Your task to perform on an android device: empty trash in the gmail app Image 0: 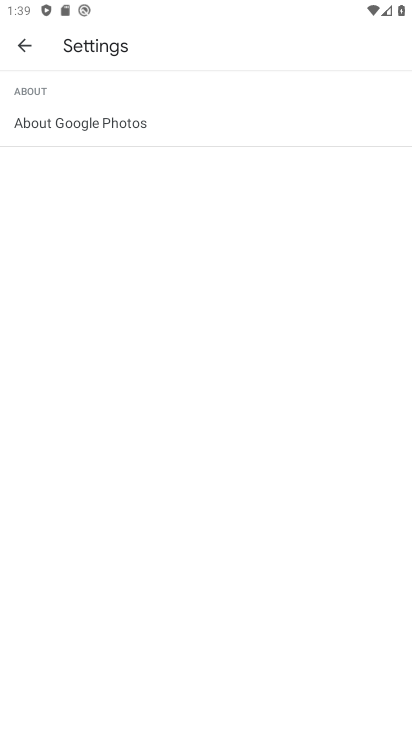
Step 0: press home button
Your task to perform on an android device: empty trash in the gmail app Image 1: 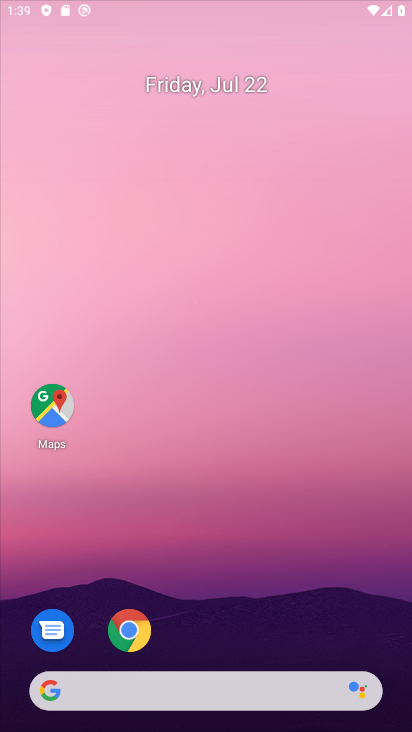
Step 1: drag from (208, 591) to (188, 131)
Your task to perform on an android device: empty trash in the gmail app Image 2: 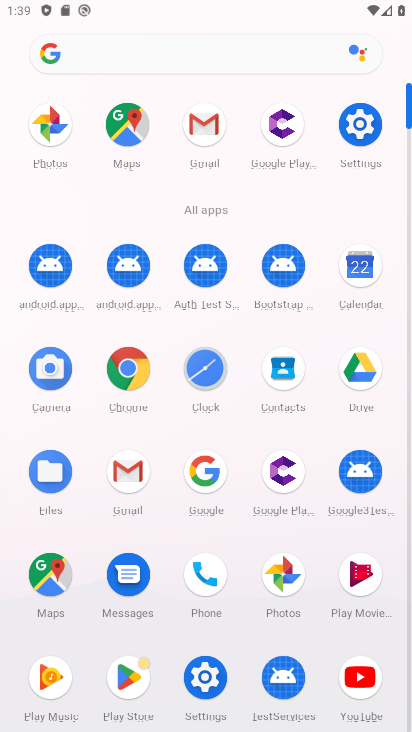
Step 2: click (191, 129)
Your task to perform on an android device: empty trash in the gmail app Image 3: 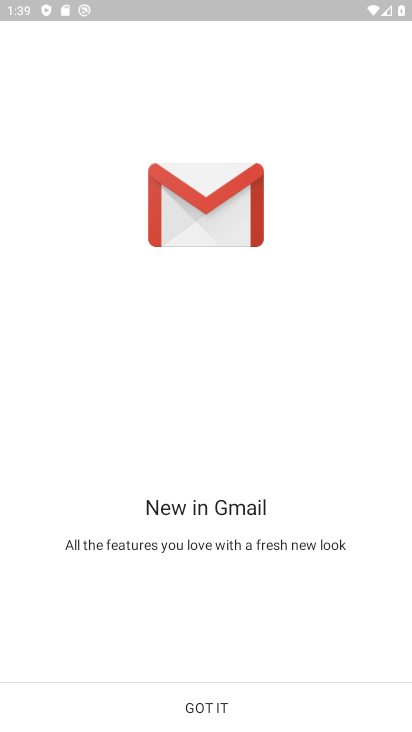
Step 3: click (192, 708)
Your task to perform on an android device: empty trash in the gmail app Image 4: 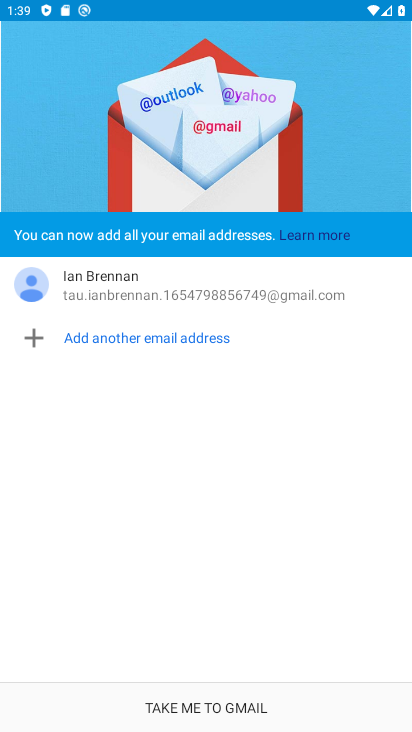
Step 4: click (192, 708)
Your task to perform on an android device: empty trash in the gmail app Image 5: 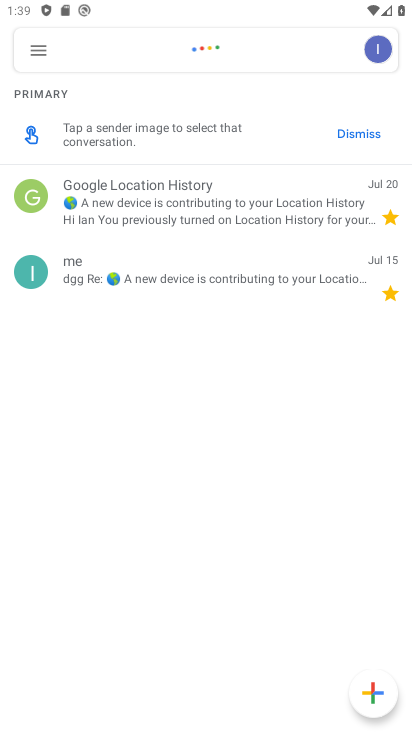
Step 5: click (41, 48)
Your task to perform on an android device: empty trash in the gmail app Image 6: 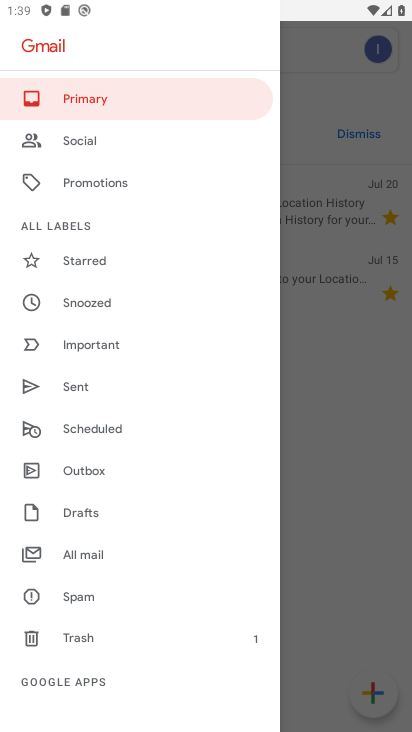
Step 6: click (101, 635)
Your task to perform on an android device: empty trash in the gmail app Image 7: 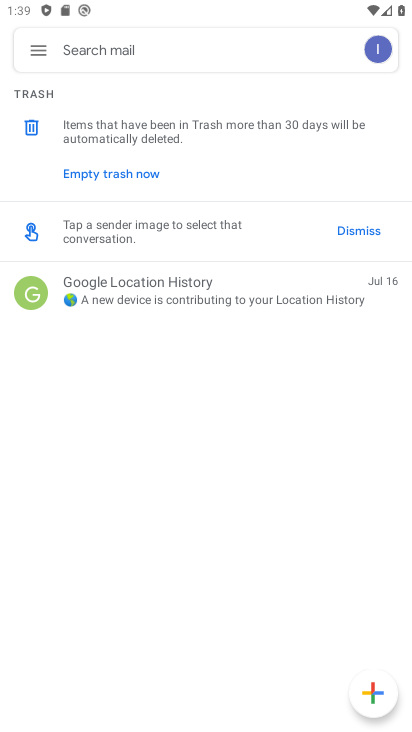
Step 7: click (160, 288)
Your task to perform on an android device: empty trash in the gmail app Image 8: 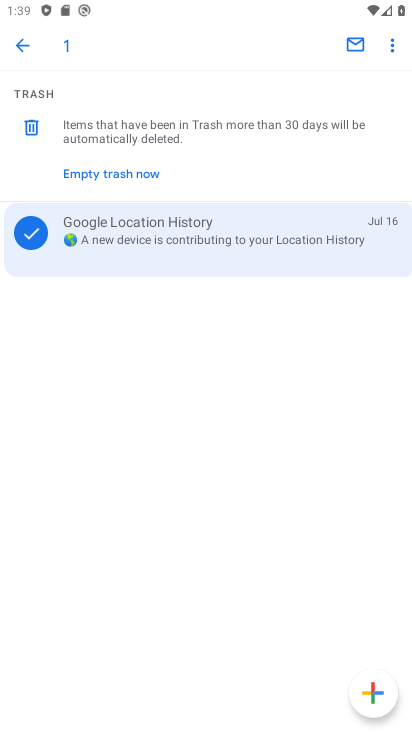
Step 8: click (96, 168)
Your task to perform on an android device: empty trash in the gmail app Image 9: 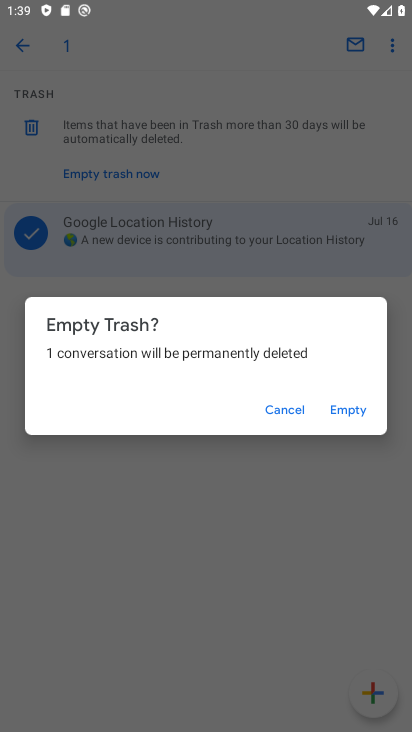
Step 9: click (328, 396)
Your task to perform on an android device: empty trash in the gmail app Image 10: 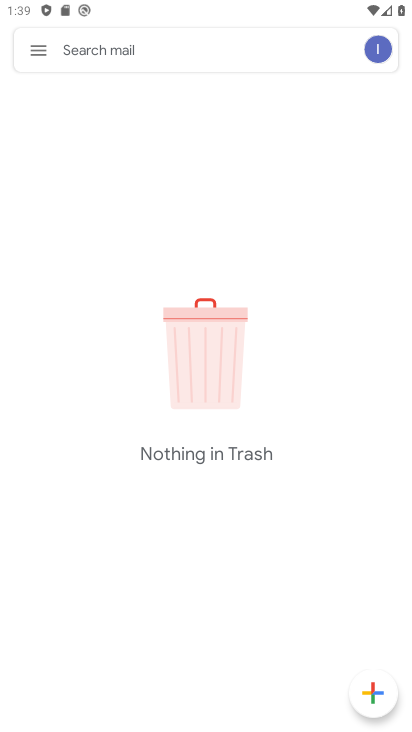
Step 10: task complete